Your task to perform on an android device: stop showing notifications on the lock screen Image 0: 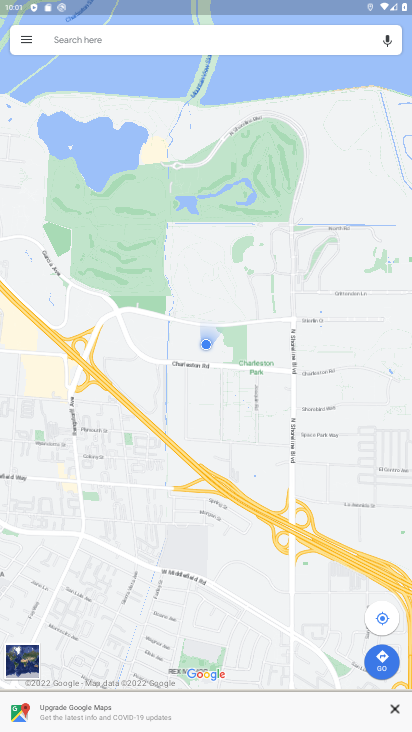
Step 0: press home button
Your task to perform on an android device: stop showing notifications on the lock screen Image 1: 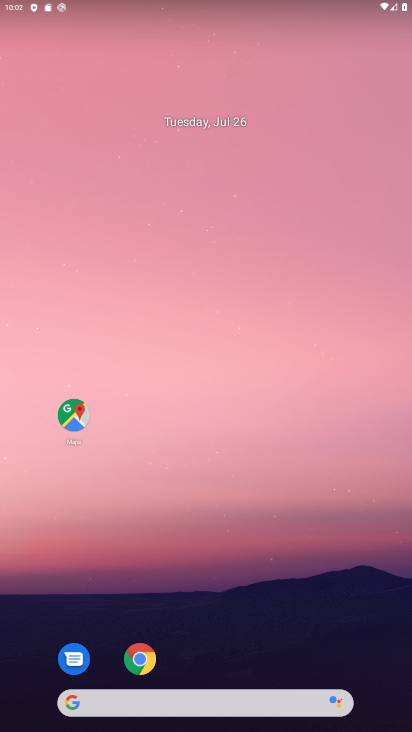
Step 1: drag from (378, 700) to (315, 49)
Your task to perform on an android device: stop showing notifications on the lock screen Image 2: 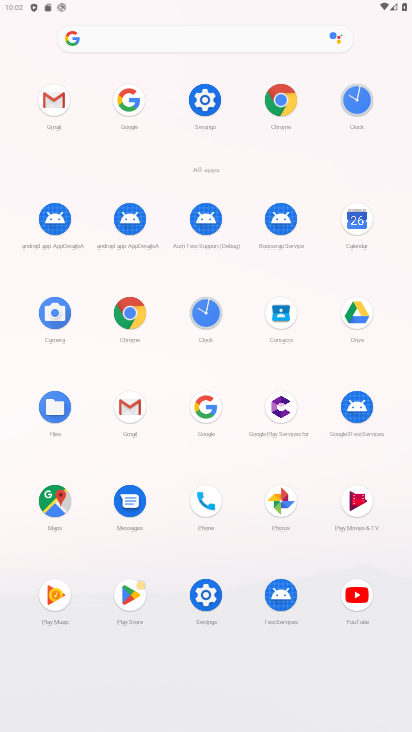
Step 2: click (209, 100)
Your task to perform on an android device: stop showing notifications on the lock screen Image 3: 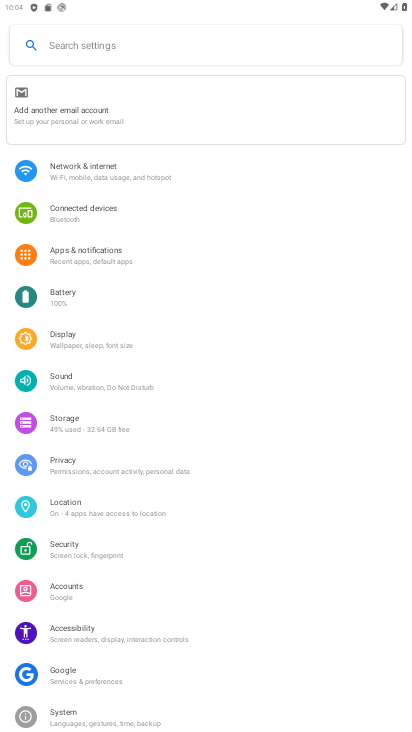
Step 3: click (107, 254)
Your task to perform on an android device: stop showing notifications on the lock screen Image 4: 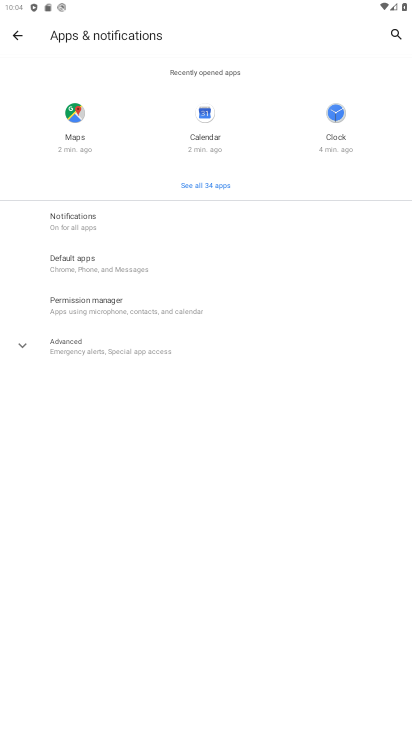
Step 4: click (20, 342)
Your task to perform on an android device: stop showing notifications on the lock screen Image 5: 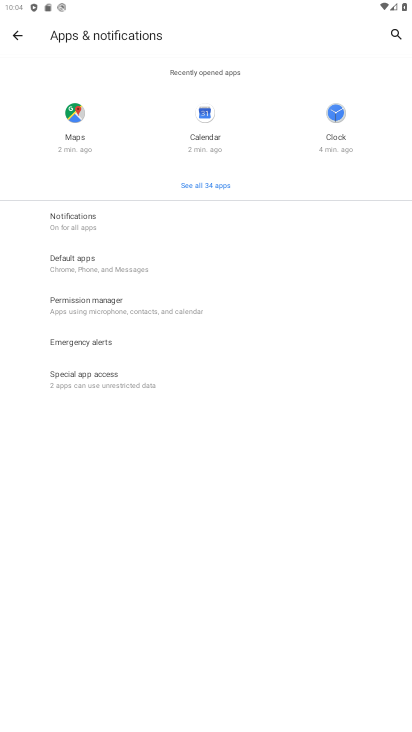
Step 5: click (60, 216)
Your task to perform on an android device: stop showing notifications on the lock screen Image 6: 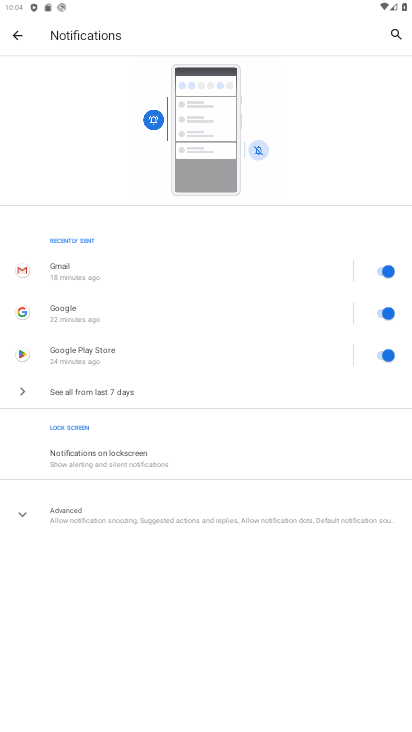
Step 6: click (88, 456)
Your task to perform on an android device: stop showing notifications on the lock screen Image 7: 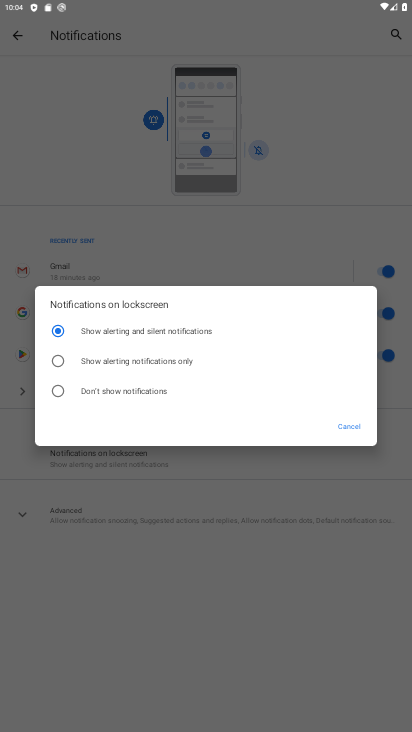
Step 7: click (90, 392)
Your task to perform on an android device: stop showing notifications on the lock screen Image 8: 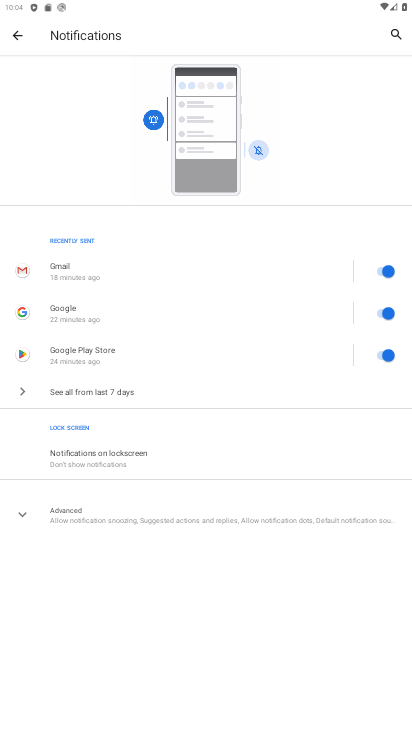
Step 8: task complete